Your task to perform on an android device: check the backup settings in the google photos Image 0: 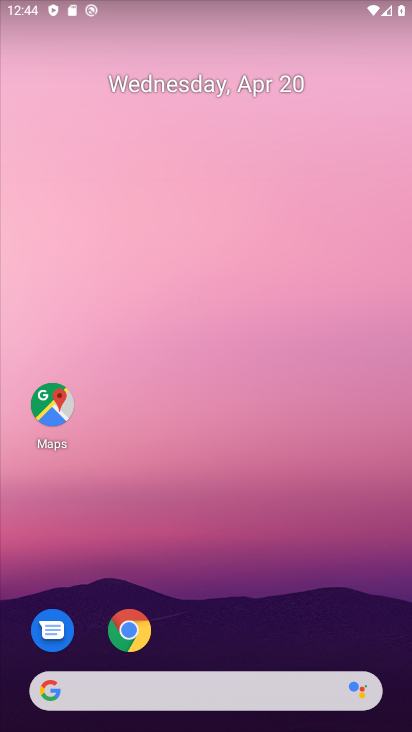
Step 0: drag from (381, 635) to (300, 162)
Your task to perform on an android device: check the backup settings in the google photos Image 1: 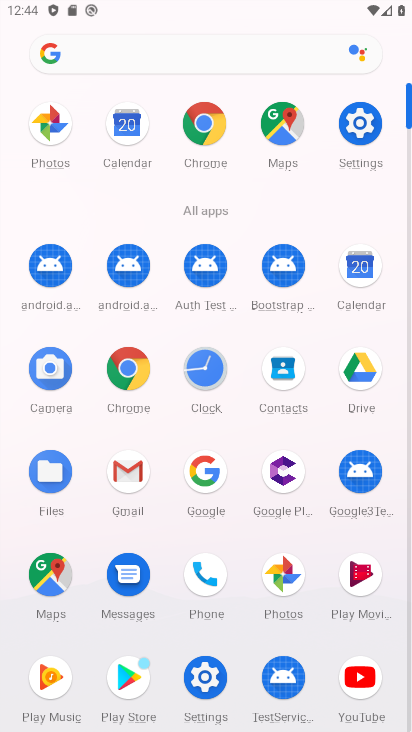
Step 1: click (274, 575)
Your task to perform on an android device: check the backup settings in the google photos Image 2: 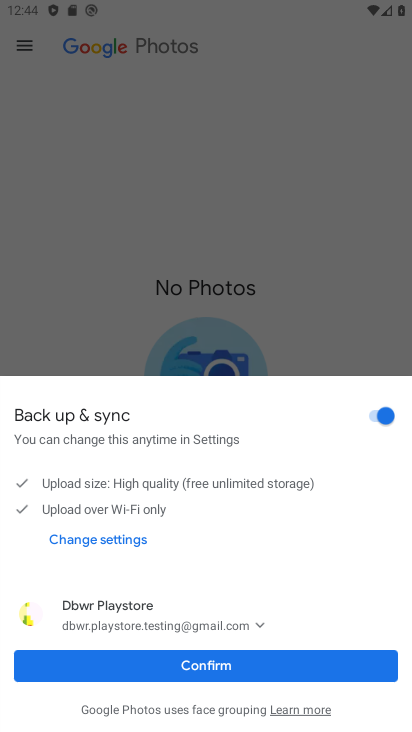
Step 2: click (249, 666)
Your task to perform on an android device: check the backup settings in the google photos Image 3: 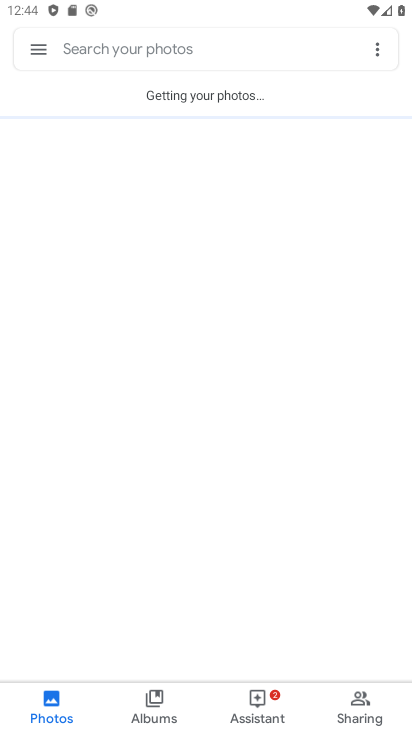
Step 3: click (31, 48)
Your task to perform on an android device: check the backup settings in the google photos Image 4: 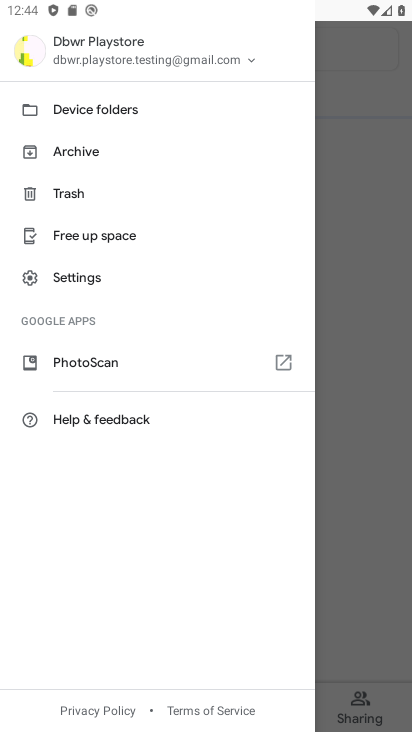
Step 4: click (64, 269)
Your task to perform on an android device: check the backup settings in the google photos Image 5: 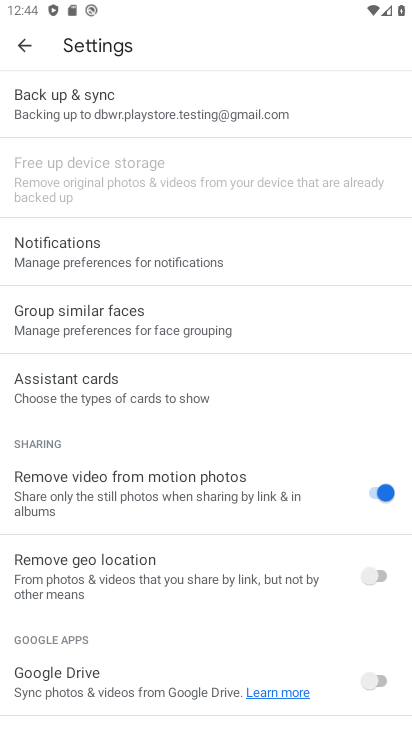
Step 5: click (102, 113)
Your task to perform on an android device: check the backup settings in the google photos Image 6: 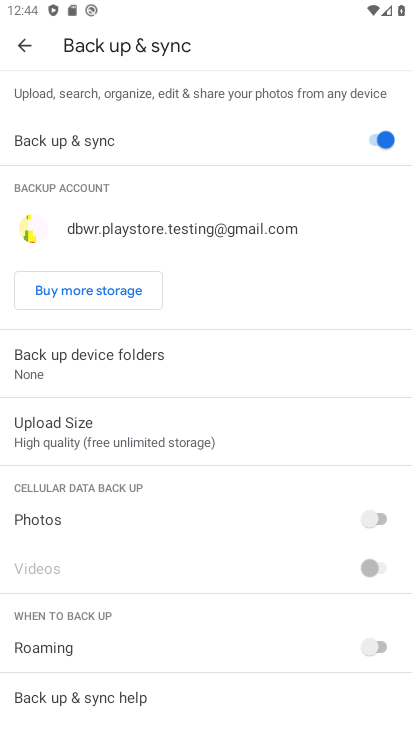
Step 6: task complete